Your task to perform on an android device: open app "Chime – Mobile Banking" Image 0: 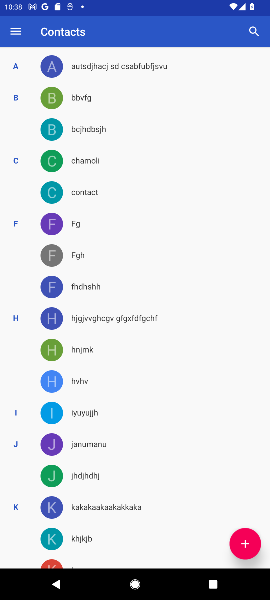
Step 0: task complete